Your task to perform on an android device: Open maps Image 0: 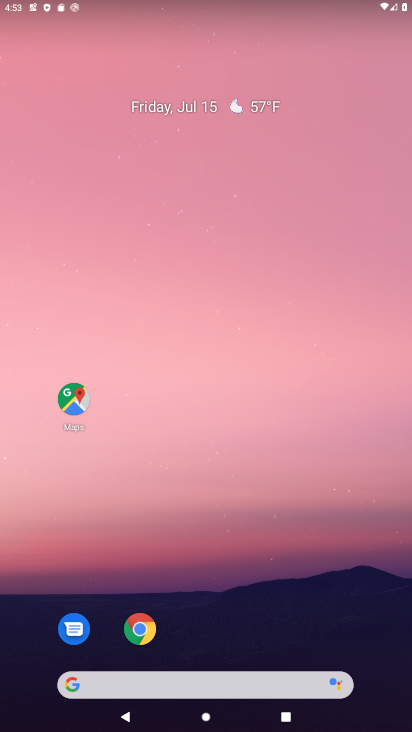
Step 0: press home button
Your task to perform on an android device: Open maps Image 1: 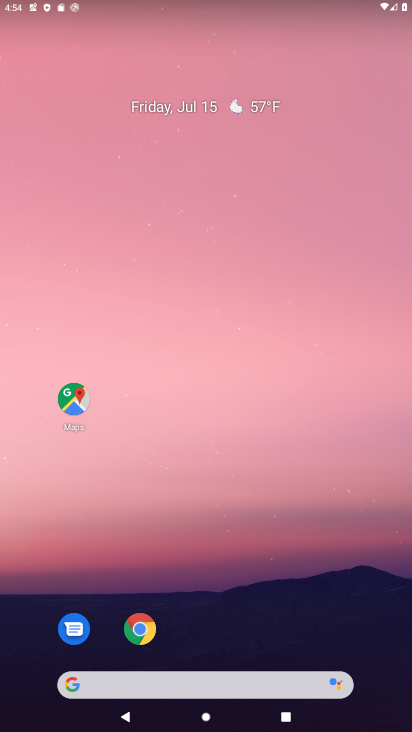
Step 1: click (73, 411)
Your task to perform on an android device: Open maps Image 2: 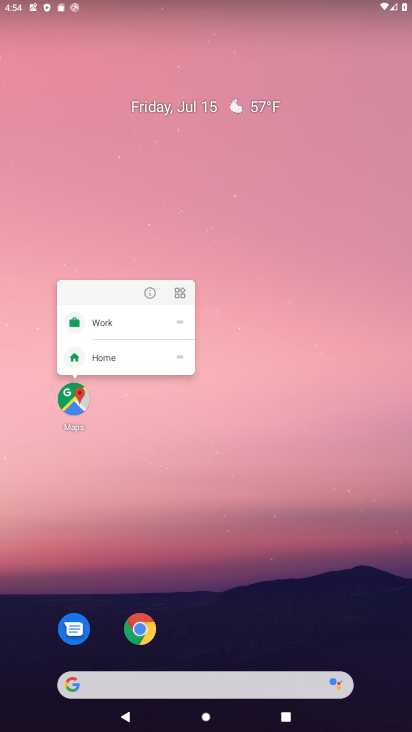
Step 2: click (73, 411)
Your task to perform on an android device: Open maps Image 3: 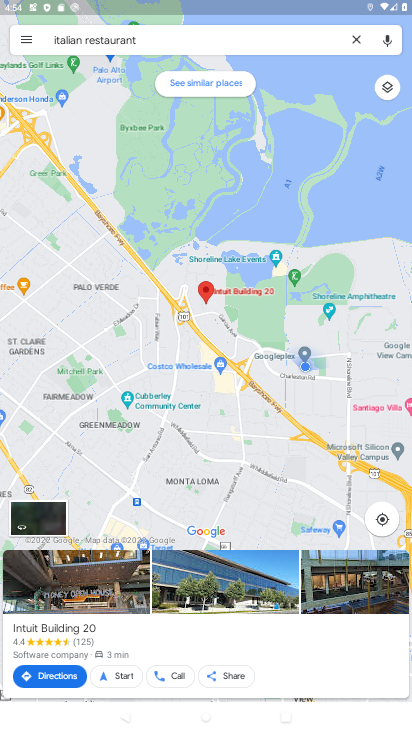
Step 3: click (352, 40)
Your task to perform on an android device: Open maps Image 4: 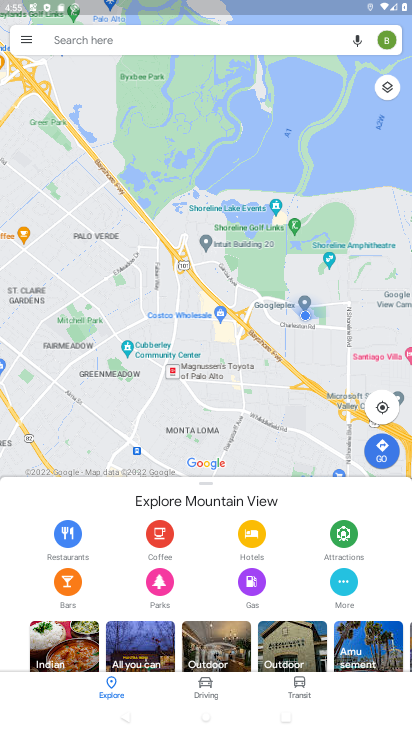
Step 4: task complete